Your task to perform on an android device: Add bose quietcomfort 35 to the cart on amazon.com Image 0: 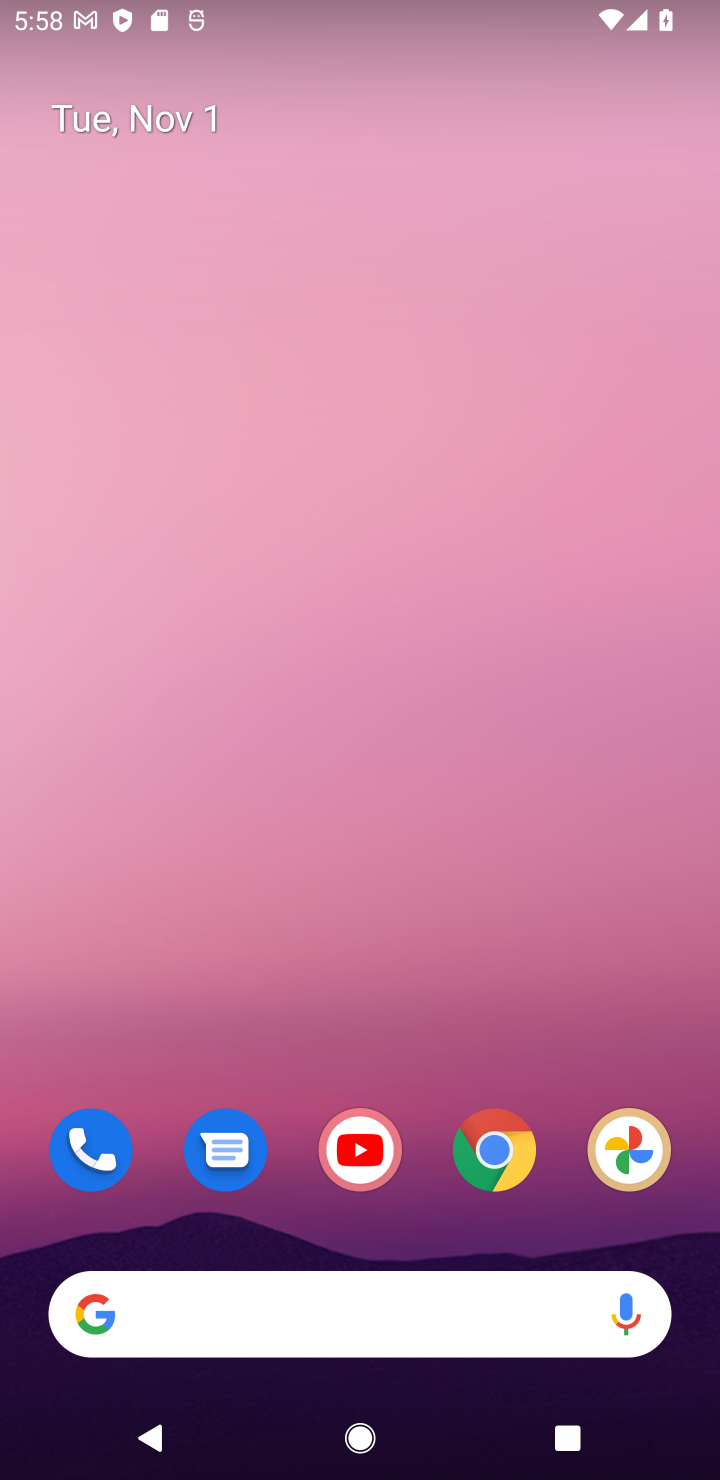
Step 0: press home button
Your task to perform on an android device: Add bose quietcomfort 35 to the cart on amazon.com Image 1: 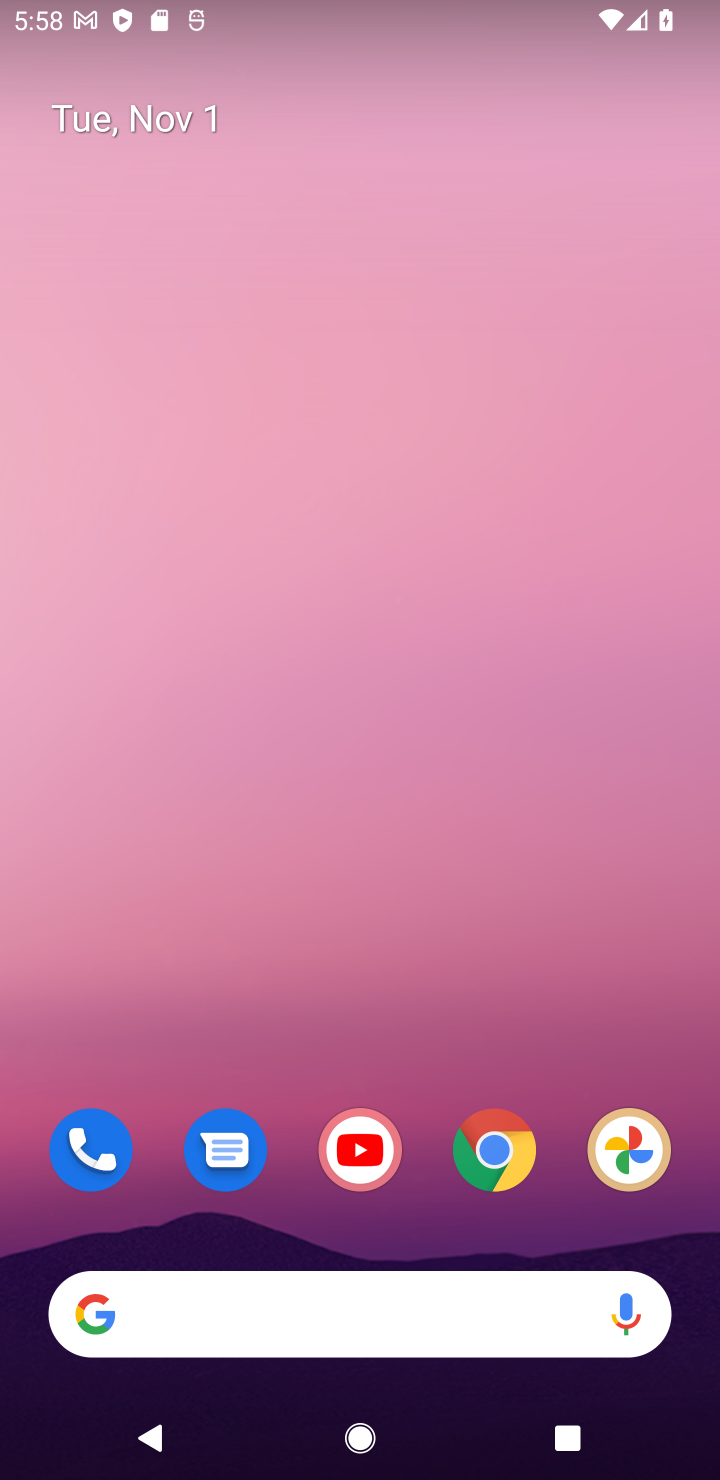
Step 1: click (494, 1151)
Your task to perform on an android device: Add bose quietcomfort 35 to the cart on amazon.com Image 2: 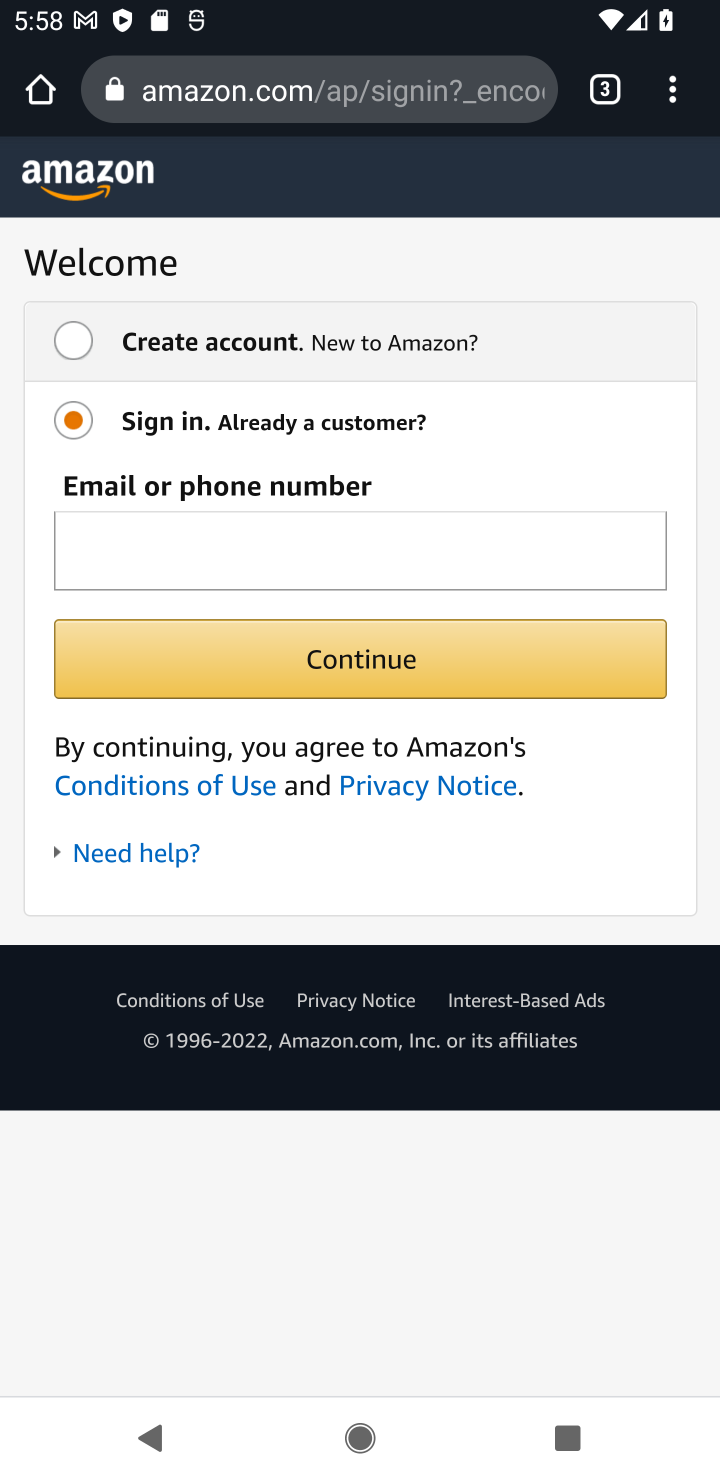
Step 2: press back button
Your task to perform on an android device: Add bose quietcomfort 35 to the cart on amazon.com Image 3: 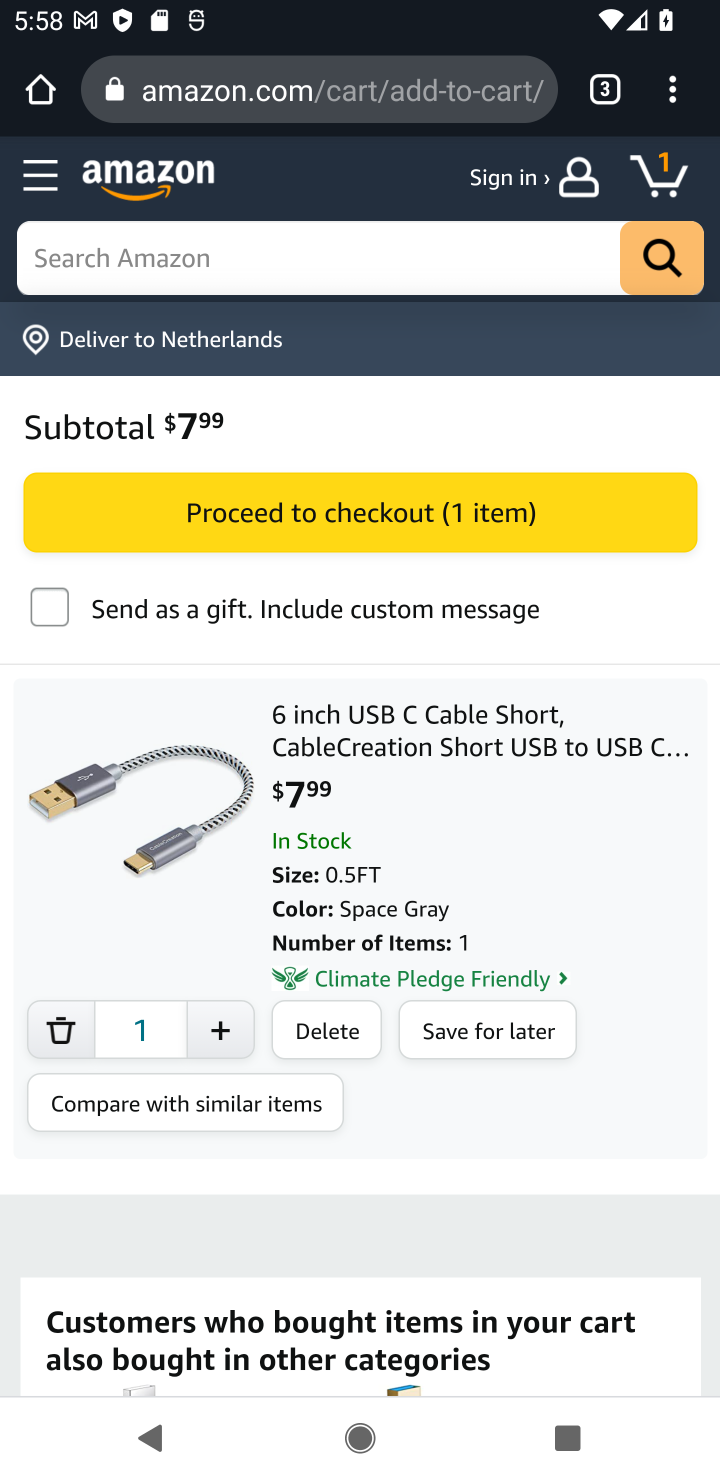
Step 3: click (416, 259)
Your task to perform on an android device: Add bose quietcomfort 35 to the cart on amazon.com Image 4: 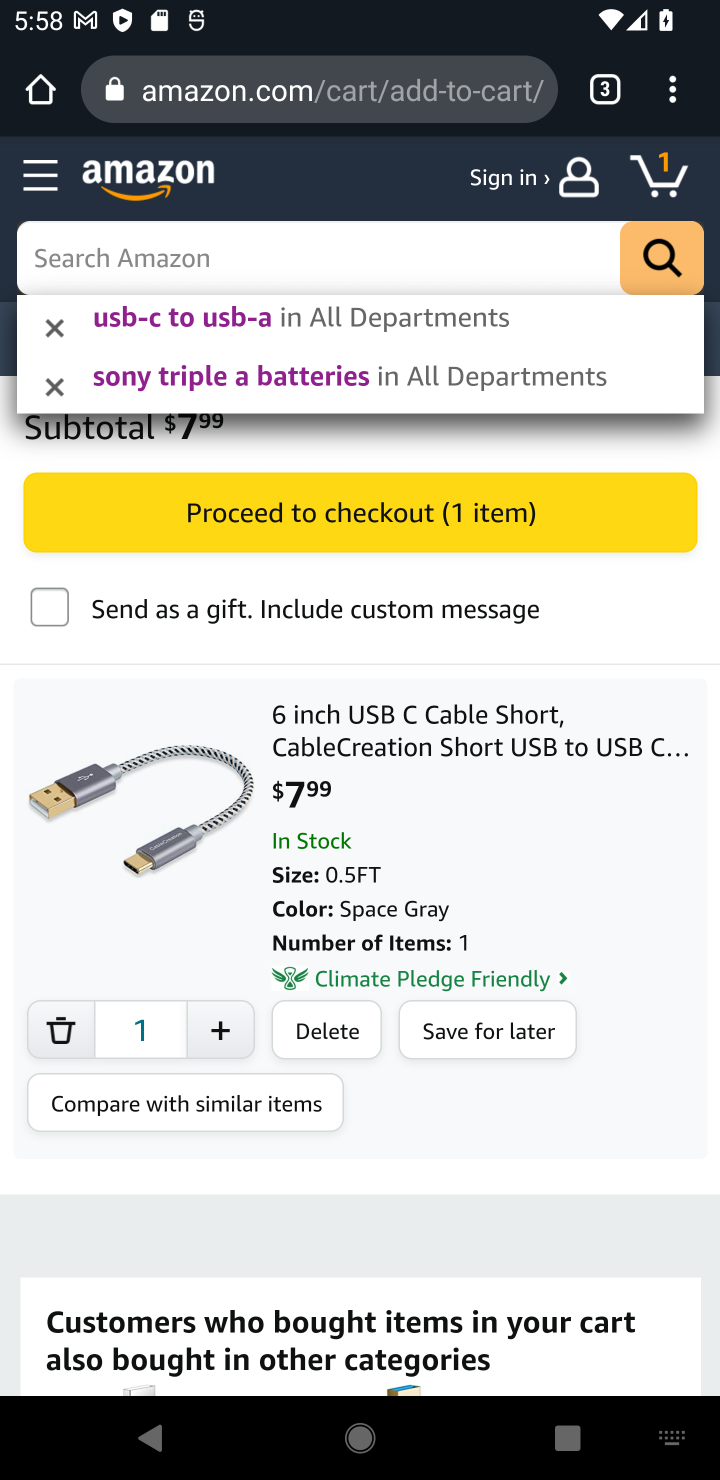
Step 4: click (416, 259)
Your task to perform on an android device: Add bose quietcomfort 35 to the cart on amazon.com Image 5: 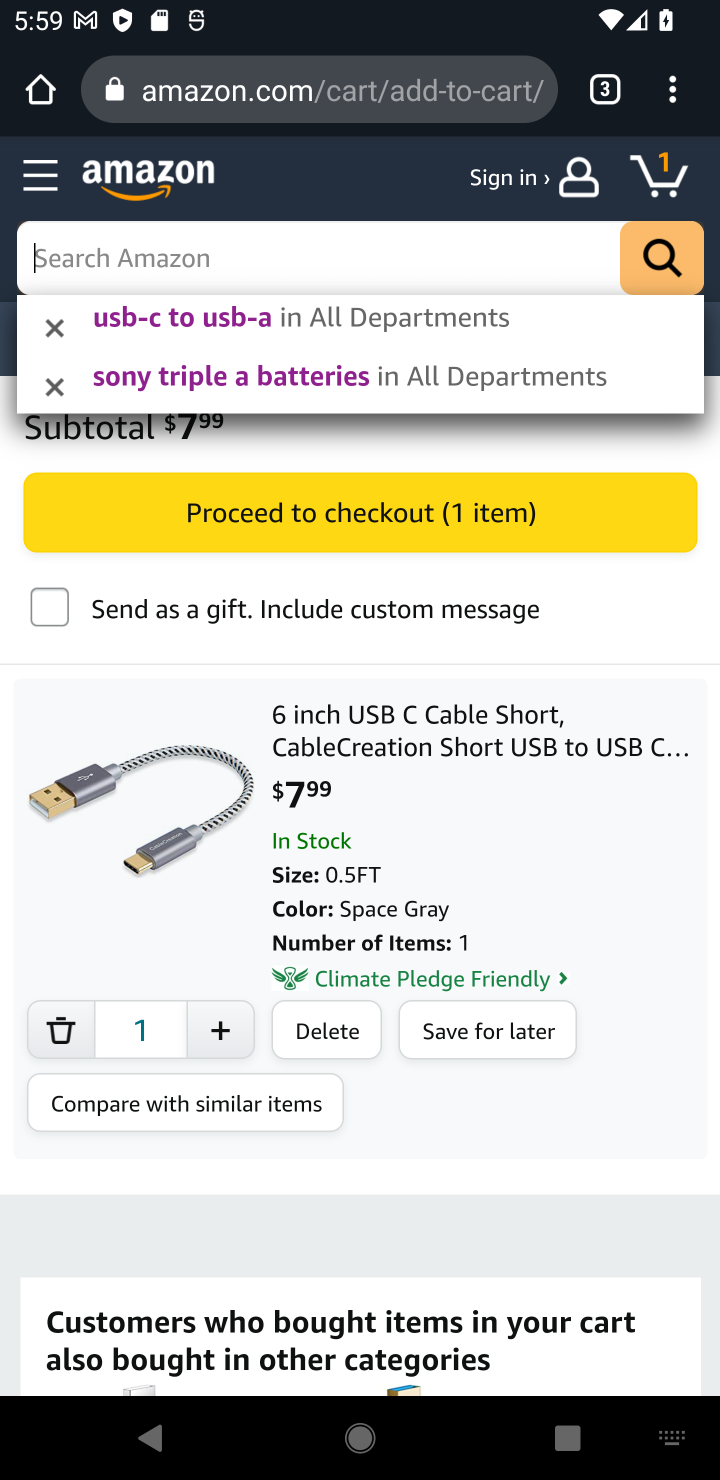
Step 5: type "bose quietcomfort 35"
Your task to perform on an android device: Add bose quietcomfort 35 to the cart on amazon.com Image 6: 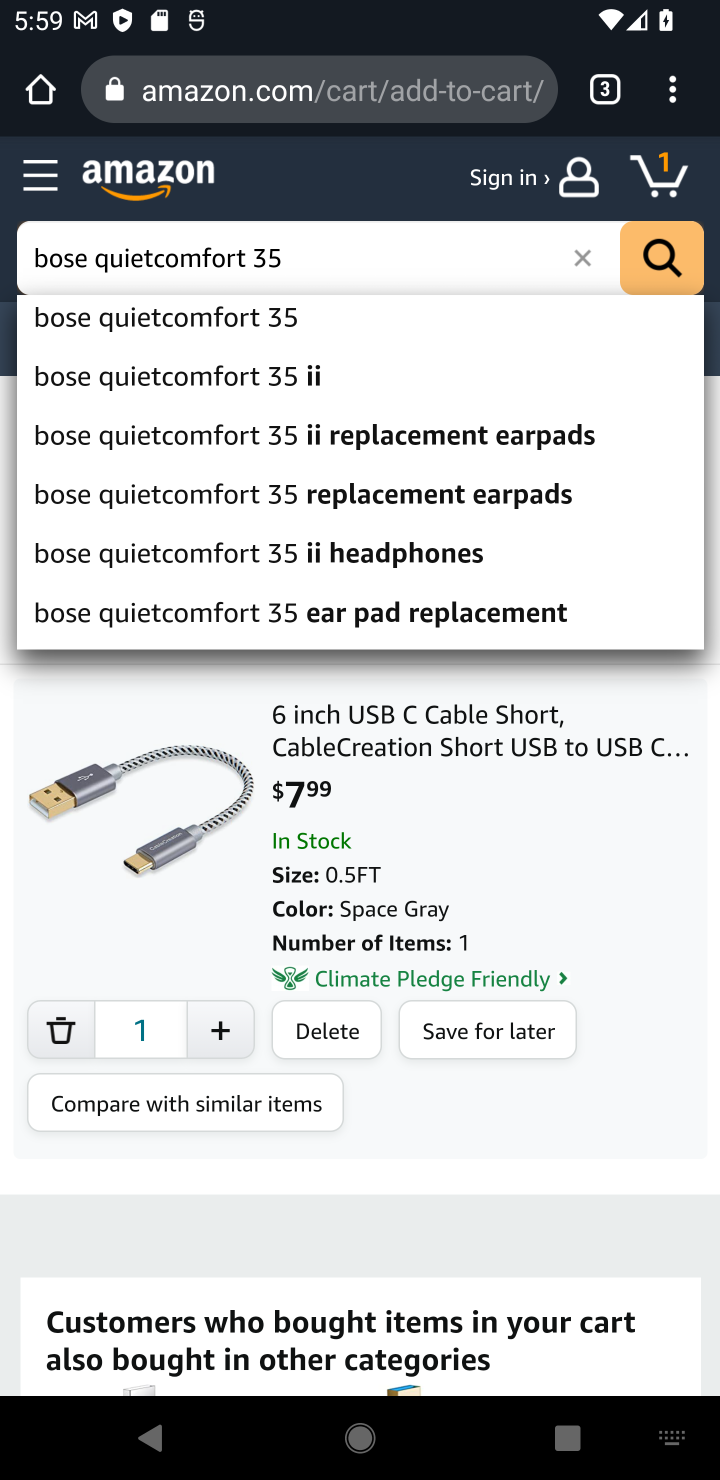
Step 6: click (237, 308)
Your task to perform on an android device: Add bose quietcomfort 35 to the cart on amazon.com Image 7: 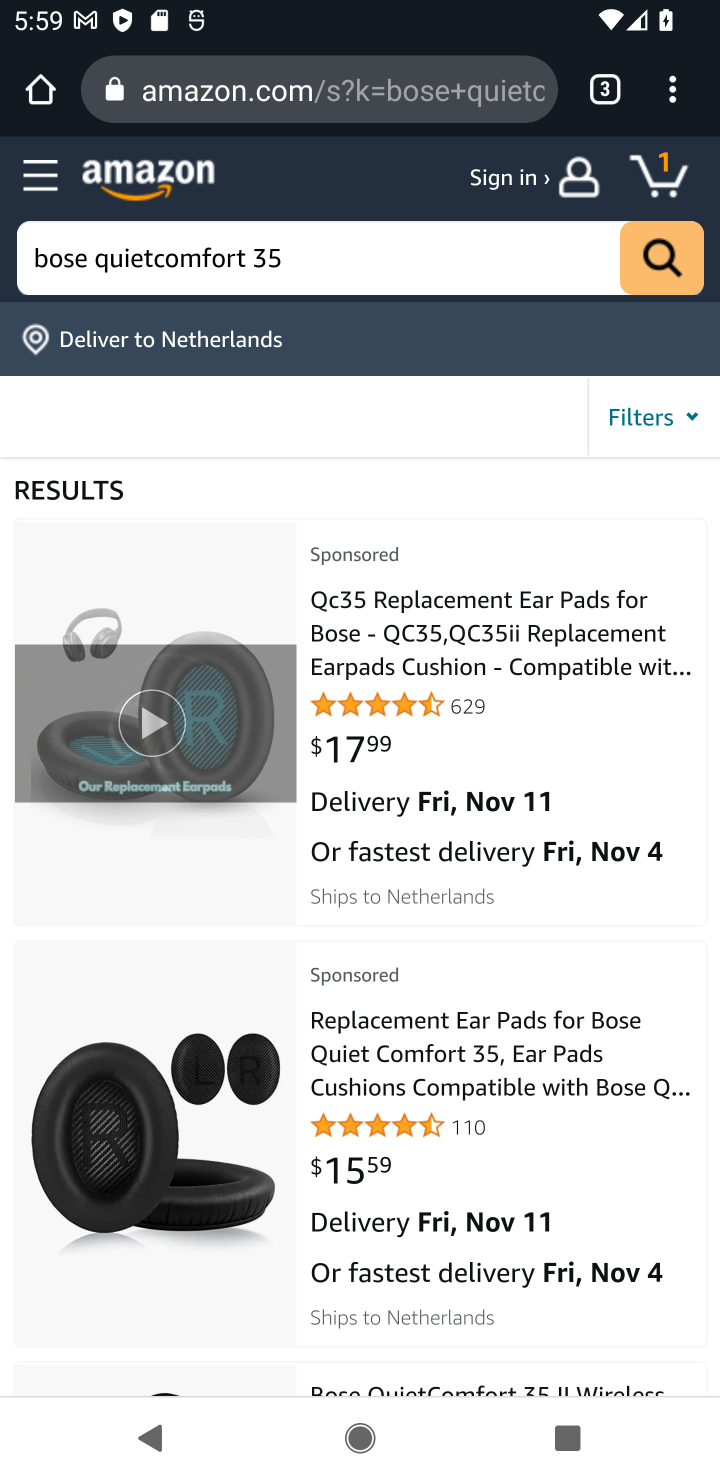
Step 7: click (472, 648)
Your task to perform on an android device: Add bose quietcomfort 35 to the cart on amazon.com Image 8: 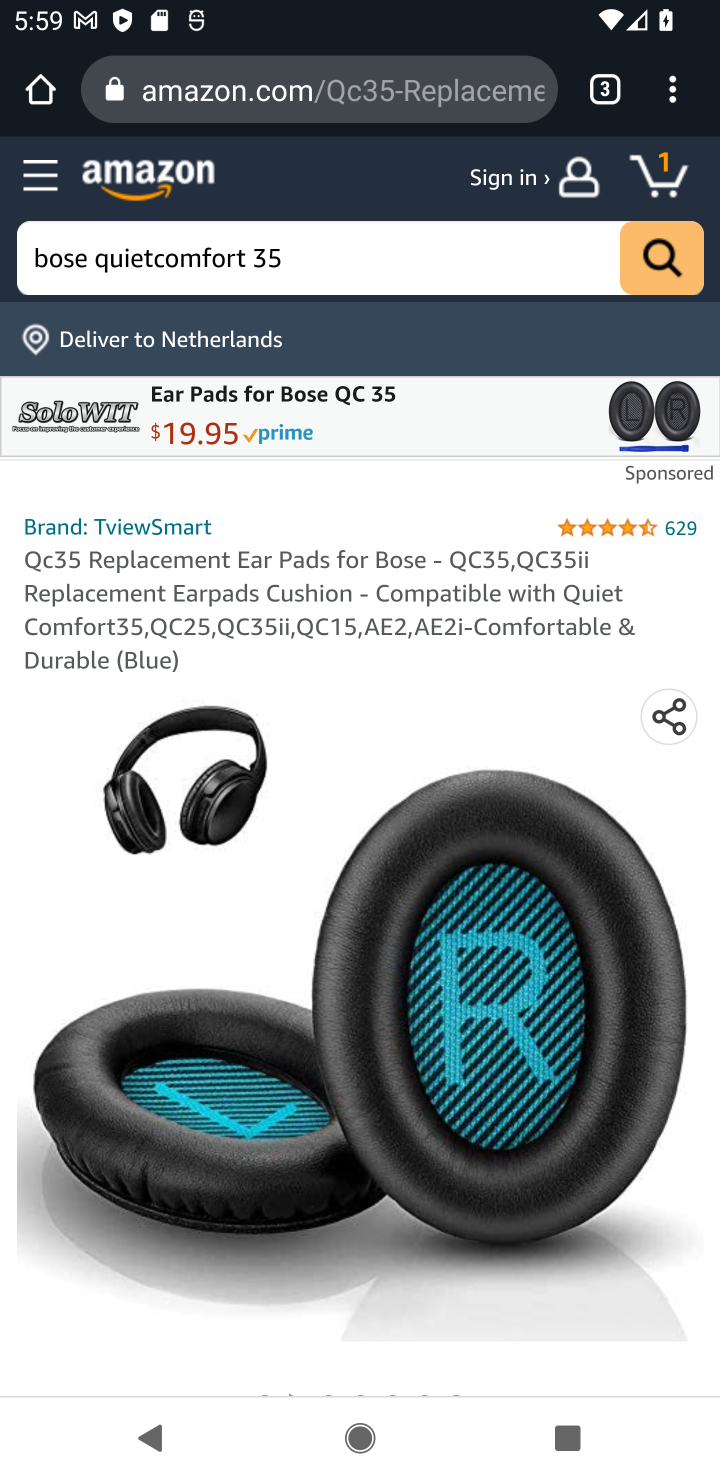
Step 8: drag from (381, 1154) to (563, 552)
Your task to perform on an android device: Add bose quietcomfort 35 to the cart on amazon.com Image 9: 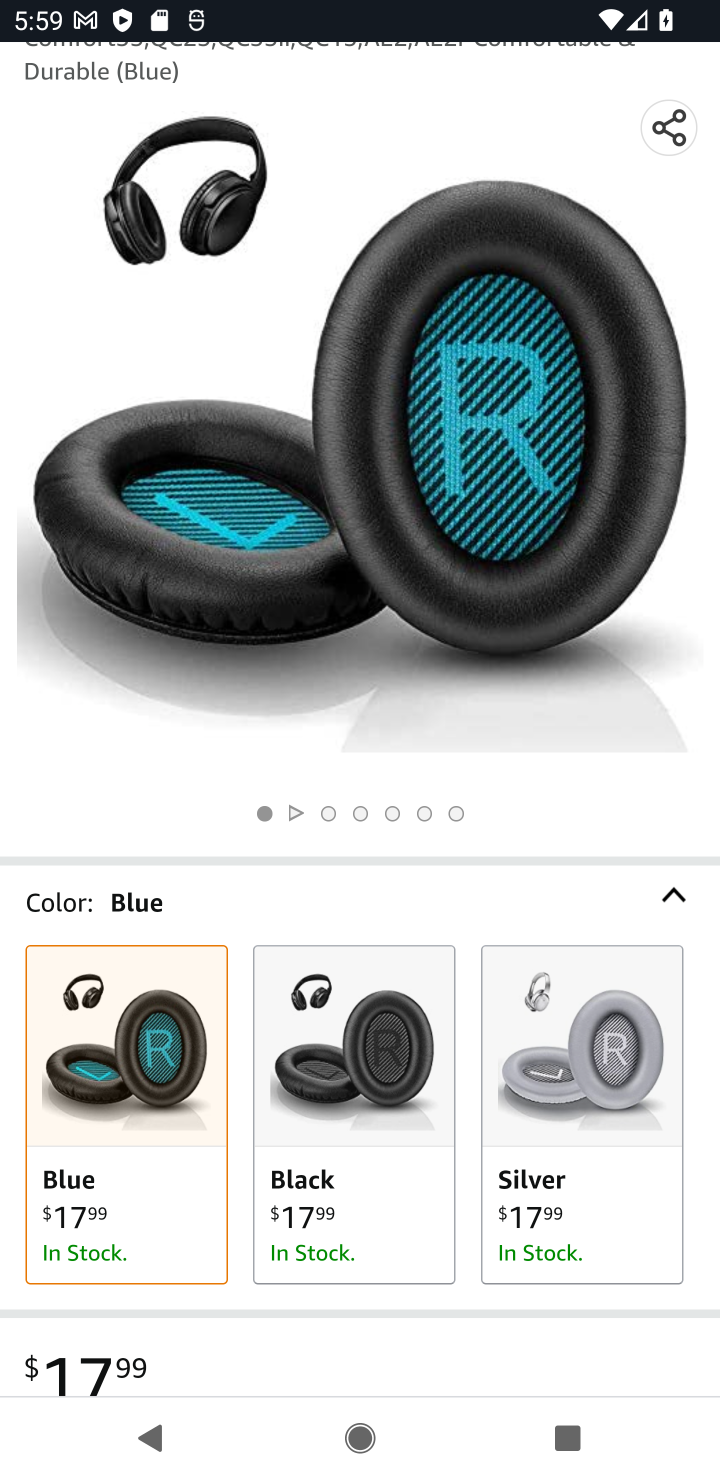
Step 9: drag from (462, 1258) to (422, 178)
Your task to perform on an android device: Add bose quietcomfort 35 to the cart on amazon.com Image 10: 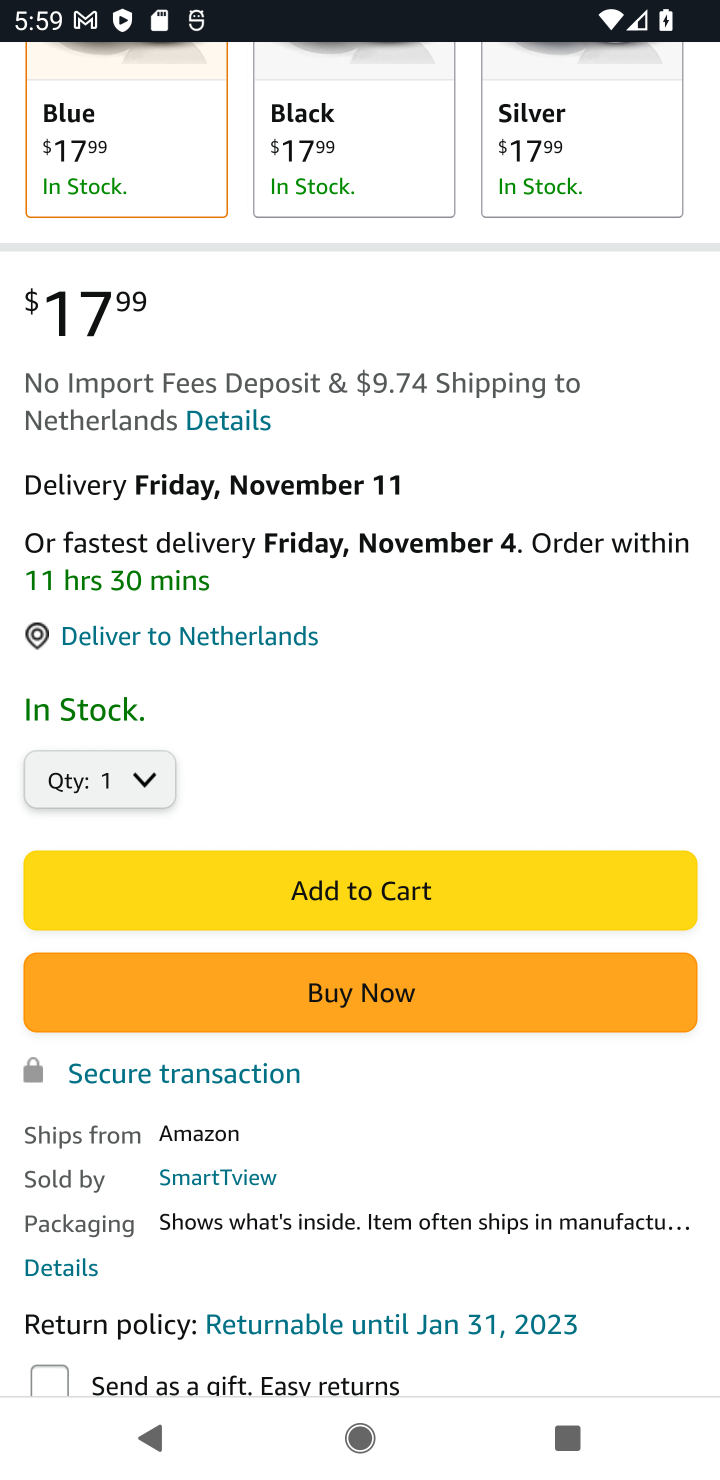
Step 10: click (353, 883)
Your task to perform on an android device: Add bose quietcomfort 35 to the cart on amazon.com Image 11: 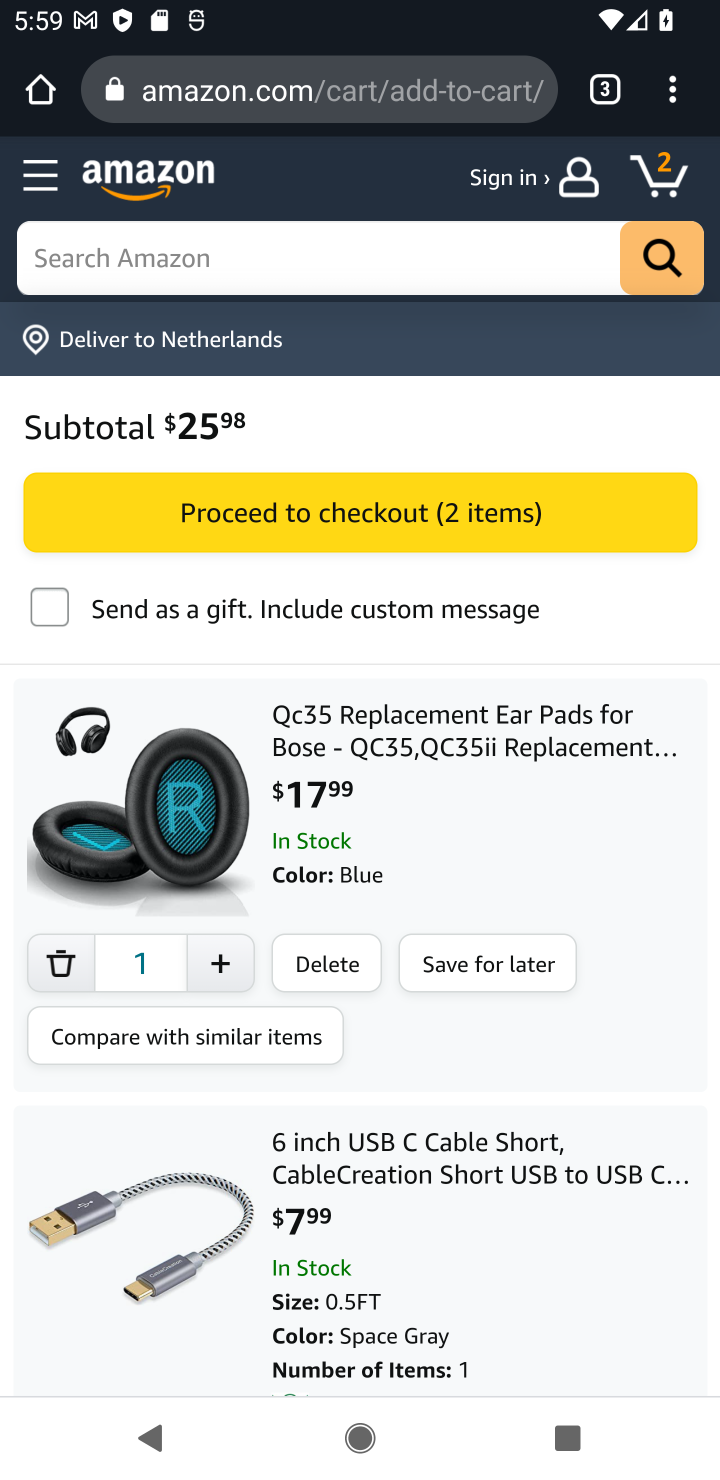
Step 11: task complete